Your task to perform on an android device: Open calendar and show me the third week of next month Image 0: 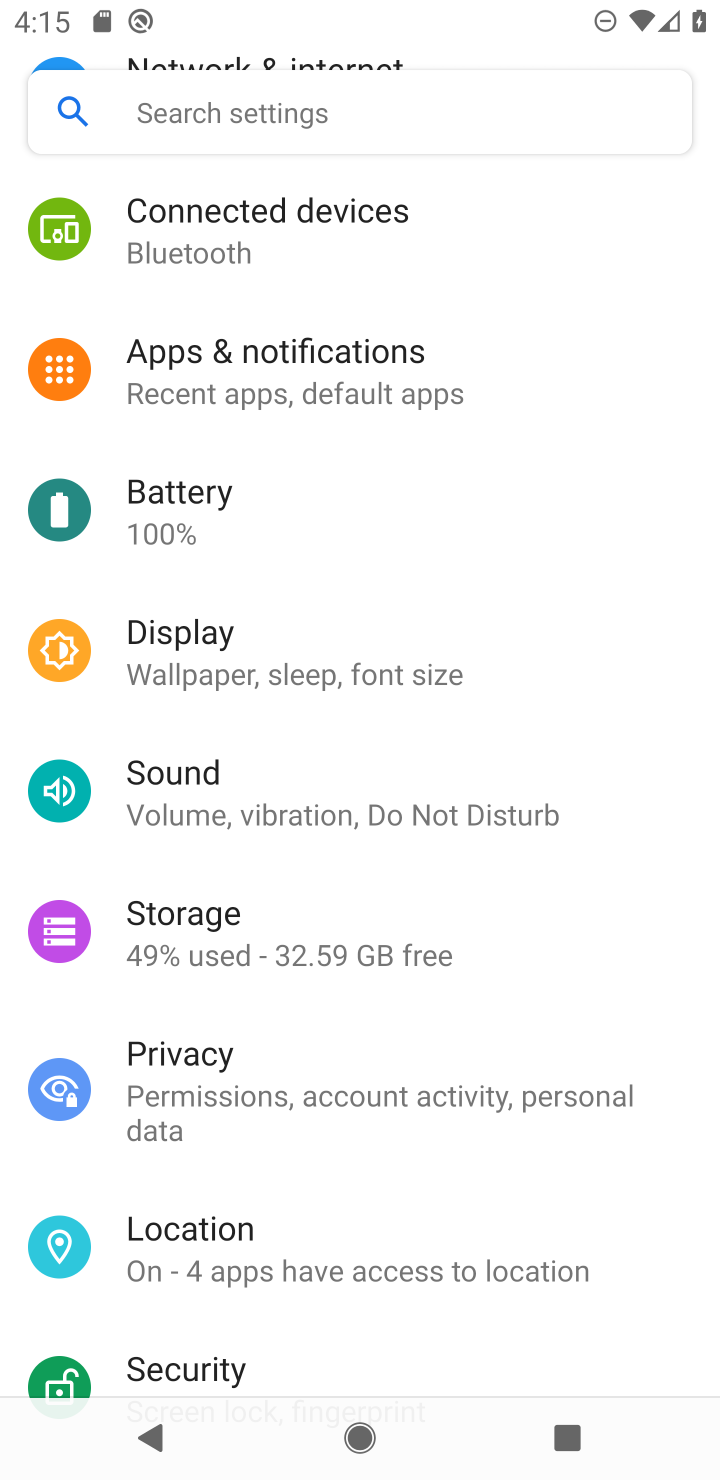
Step 0: press home button
Your task to perform on an android device: Open calendar and show me the third week of next month Image 1: 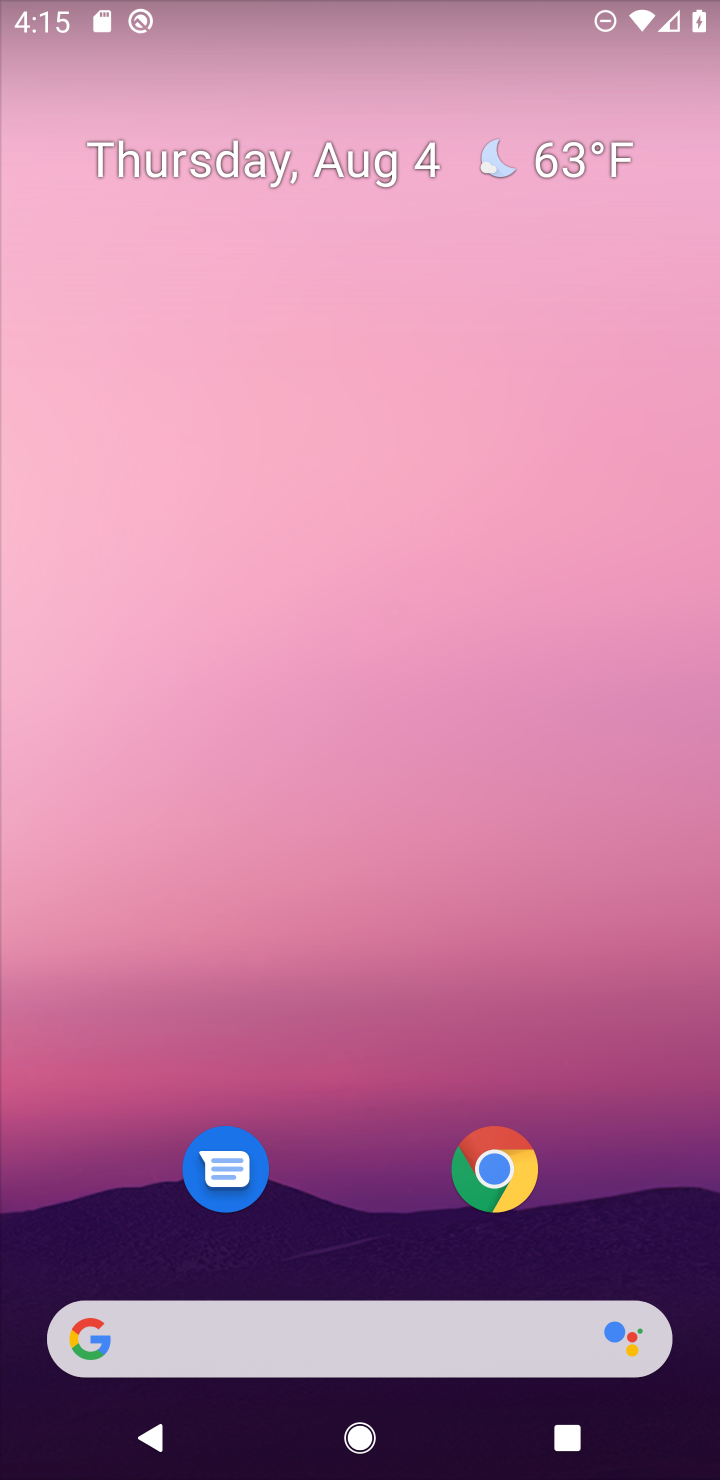
Step 1: drag from (403, 1246) to (246, 13)
Your task to perform on an android device: Open calendar and show me the third week of next month Image 2: 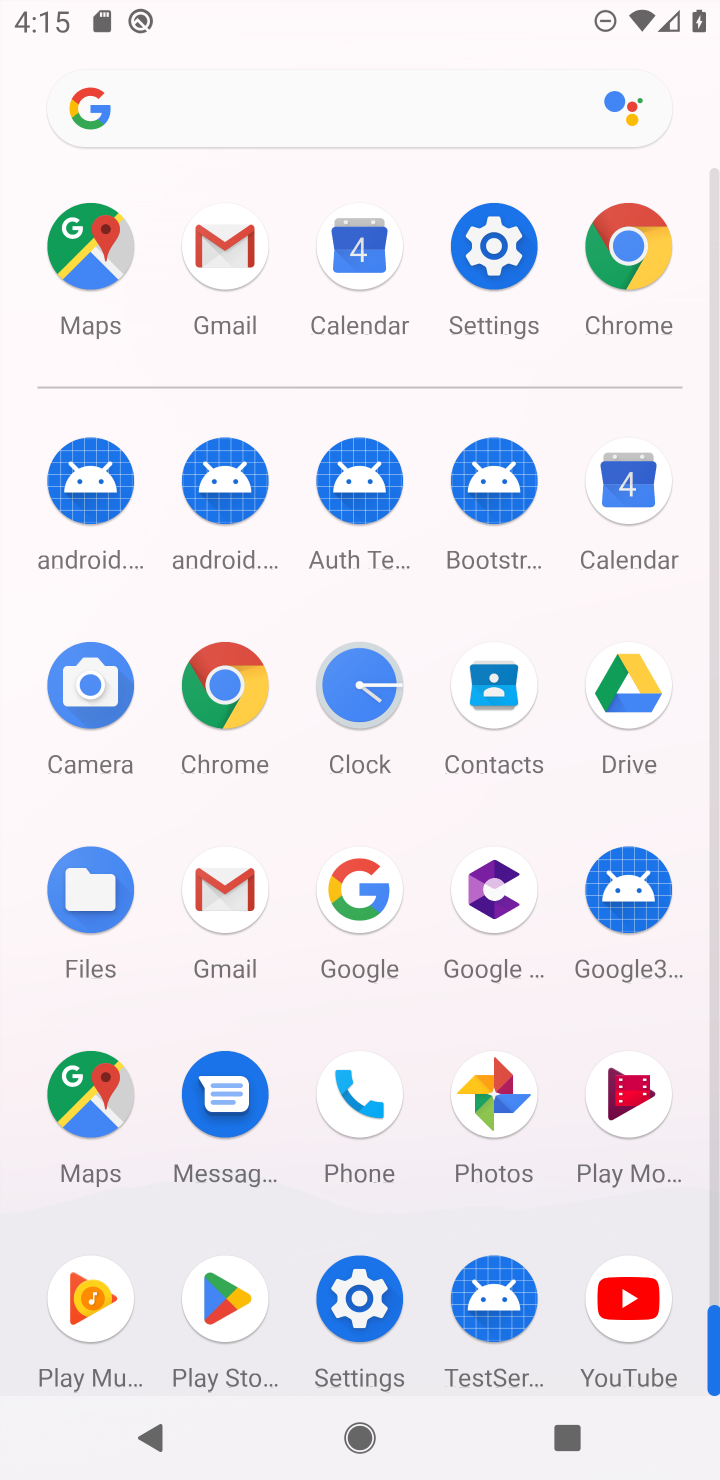
Step 2: click (630, 500)
Your task to perform on an android device: Open calendar and show me the third week of next month Image 3: 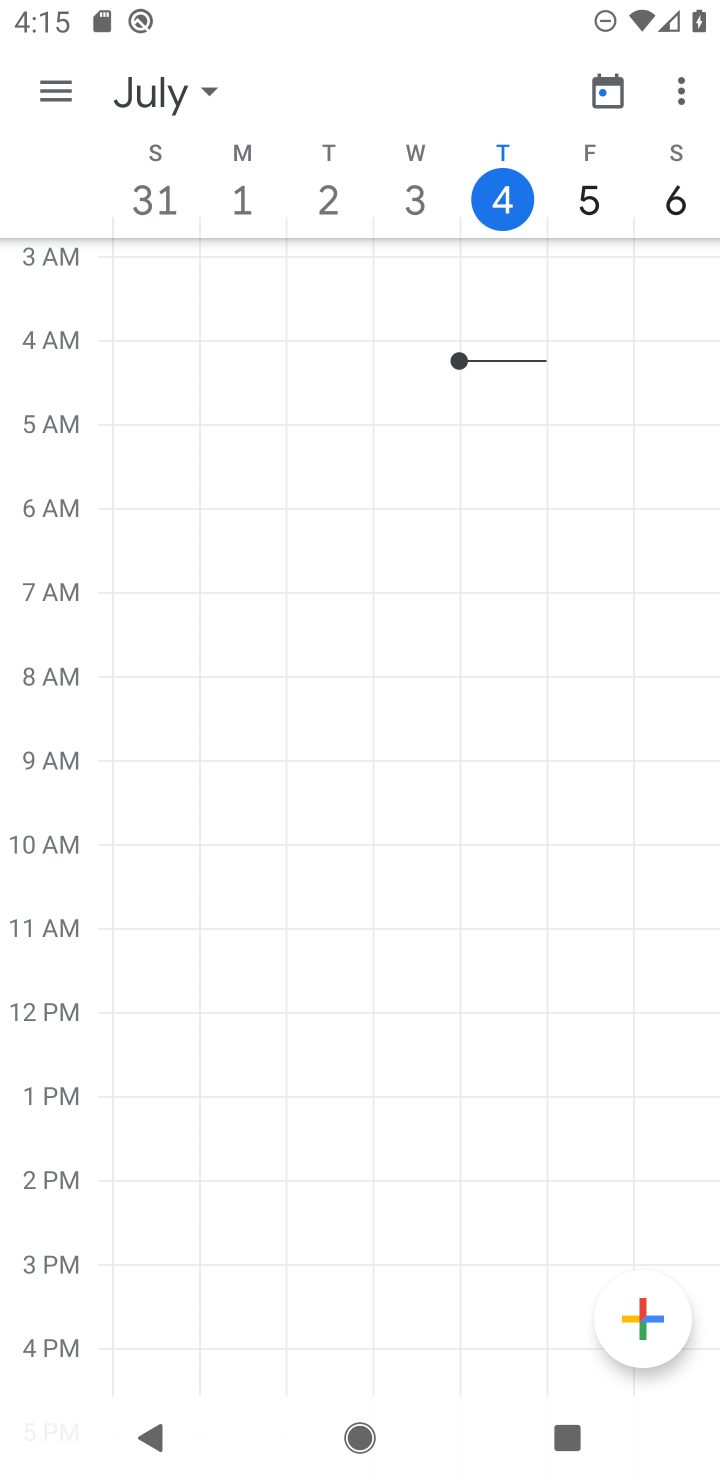
Step 3: click (45, 91)
Your task to perform on an android device: Open calendar and show me the third week of next month Image 4: 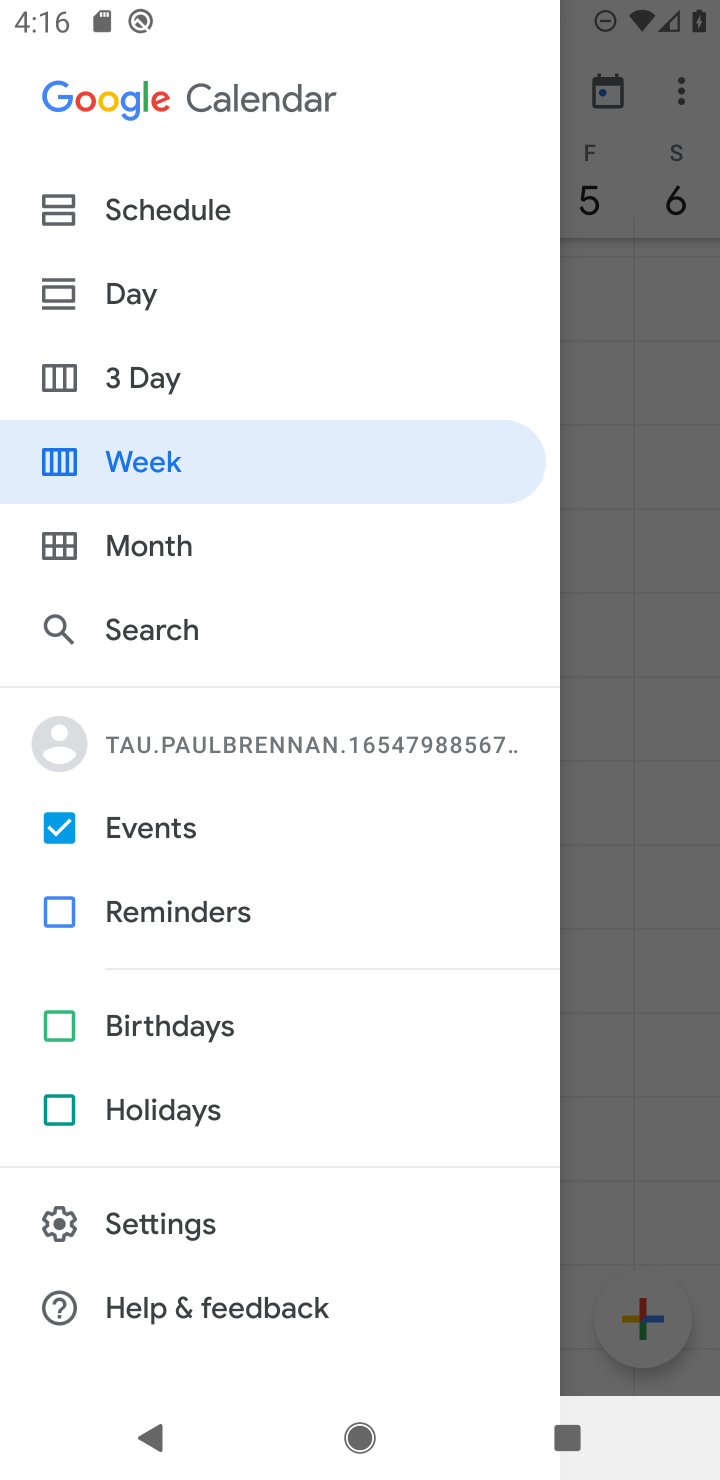
Step 4: click (608, 466)
Your task to perform on an android device: Open calendar and show me the third week of next month Image 5: 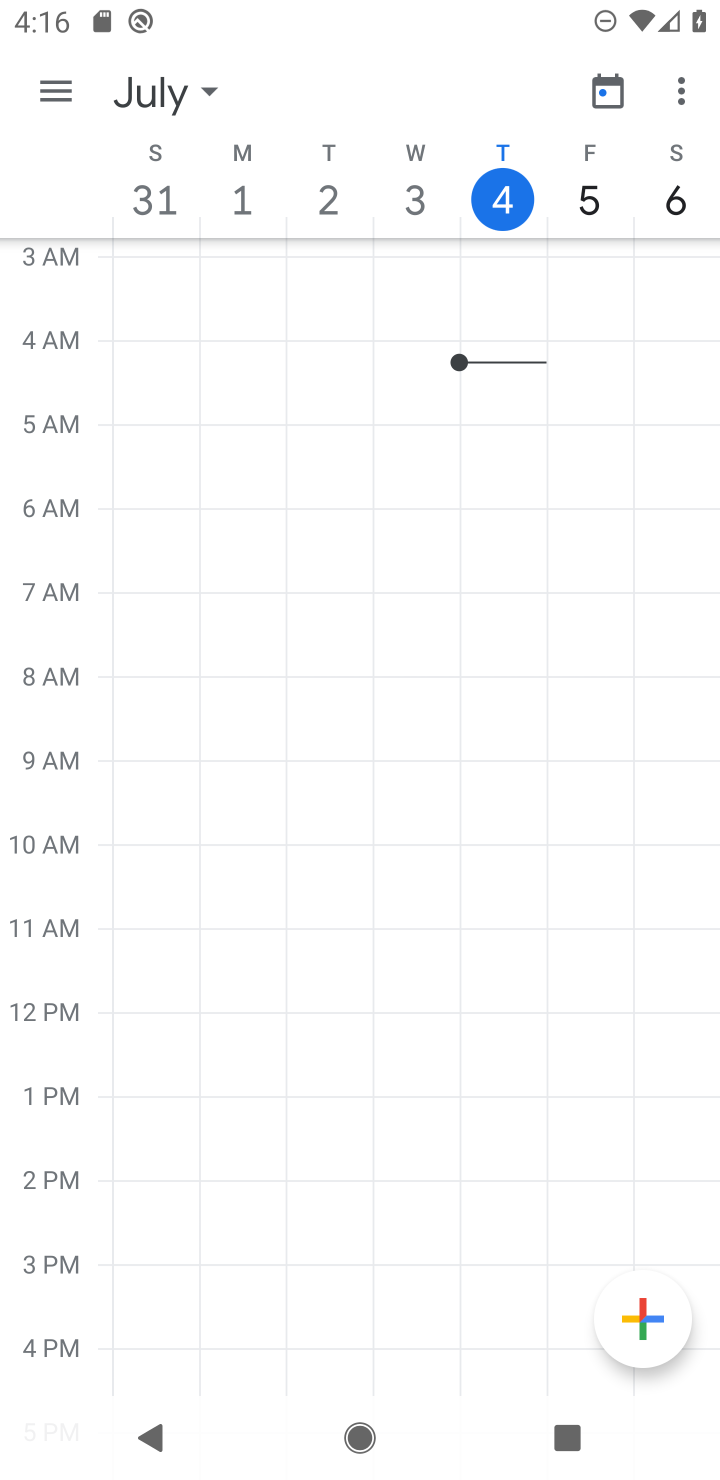
Step 5: task complete